Your task to perform on an android device: turn on translation in the chrome app Image 0: 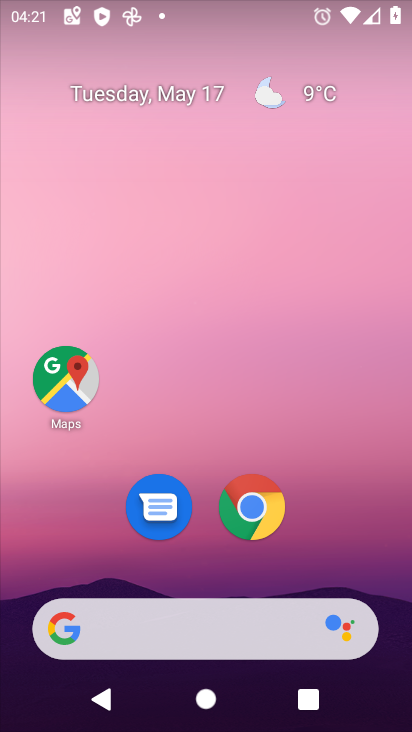
Step 0: click (260, 512)
Your task to perform on an android device: turn on translation in the chrome app Image 1: 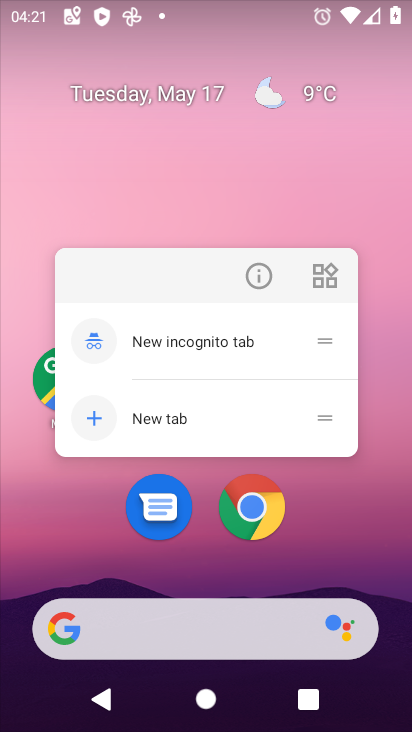
Step 1: click (244, 533)
Your task to perform on an android device: turn on translation in the chrome app Image 2: 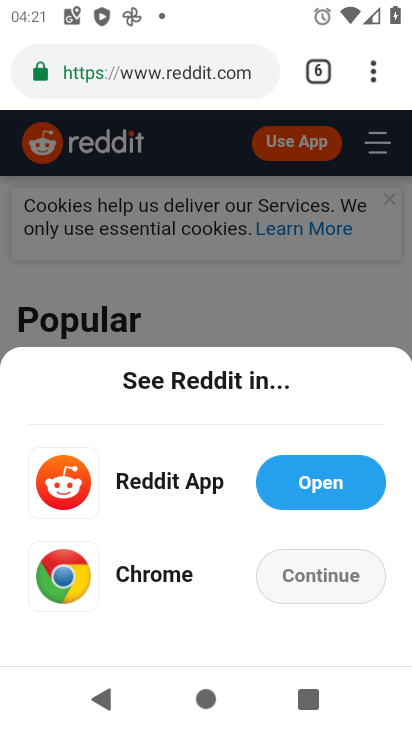
Step 2: click (370, 62)
Your task to perform on an android device: turn on translation in the chrome app Image 3: 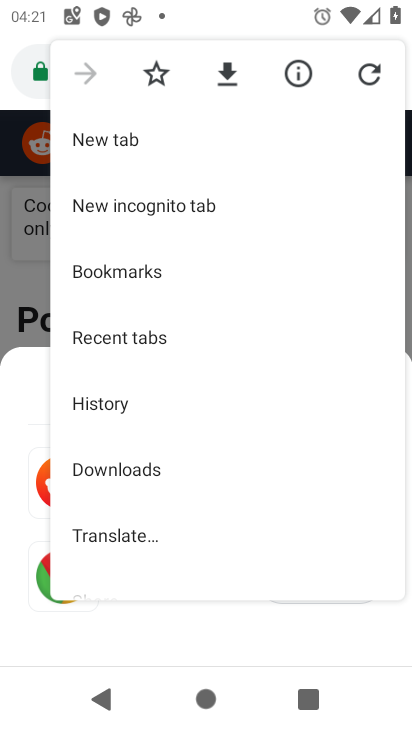
Step 3: drag from (209, 474) to (190, 222)
Your task to perform on an android device: turn on translation in the chrome app Image 4: 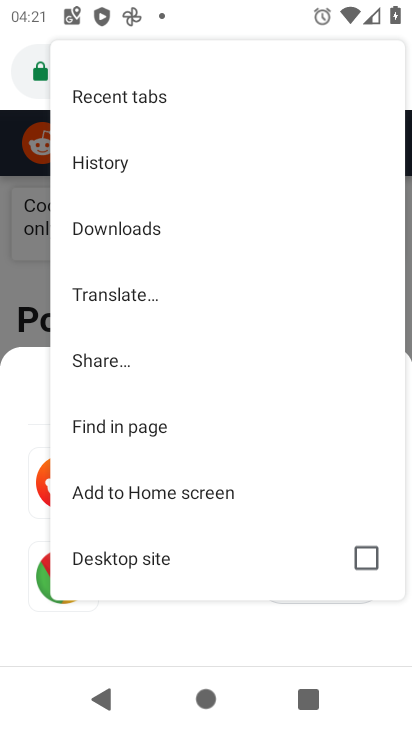
Step 4: drag from (204, 493) to (221, 195)
Your task to perform on an android device: turn on translation in the chrome app Image 5: 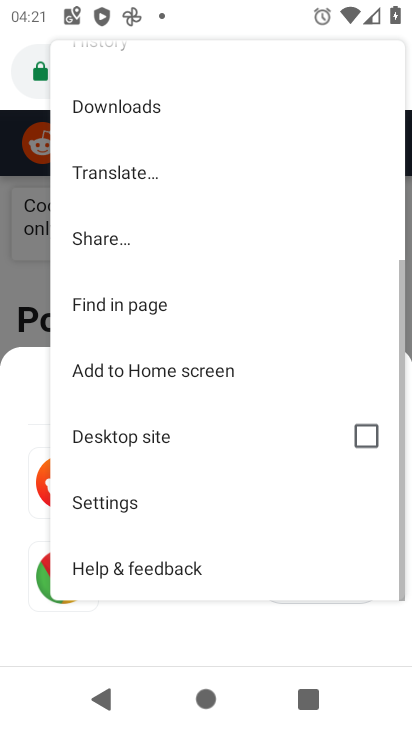
Step 5: click (126, 510)
Your task to perform on an android device: turn on translation in the chrome app Image 6: 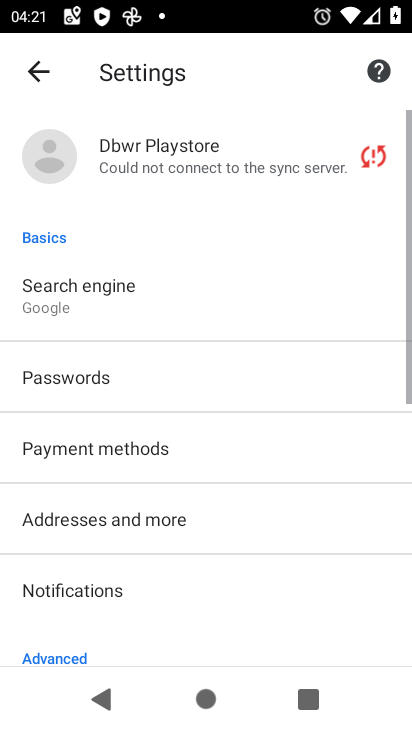
Step 6: drag from (267, 509) to (238, 127)
Your task to perform on an android device: turn on translation in the chrome app Image 7: 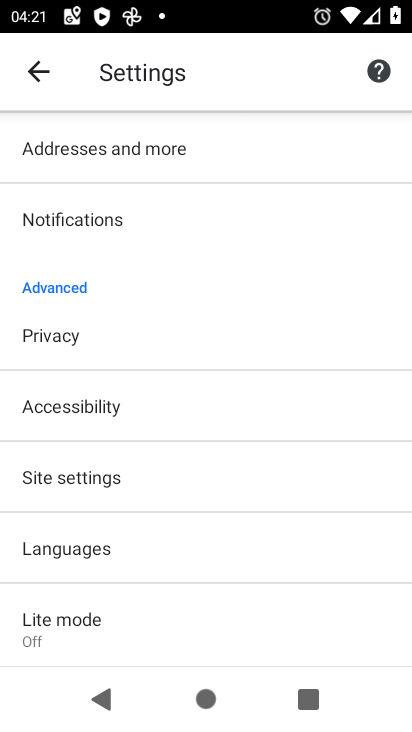
Step 7: click (132, 543)
Your task to perform on an android device: turn on translation in the chrome app Image 8: 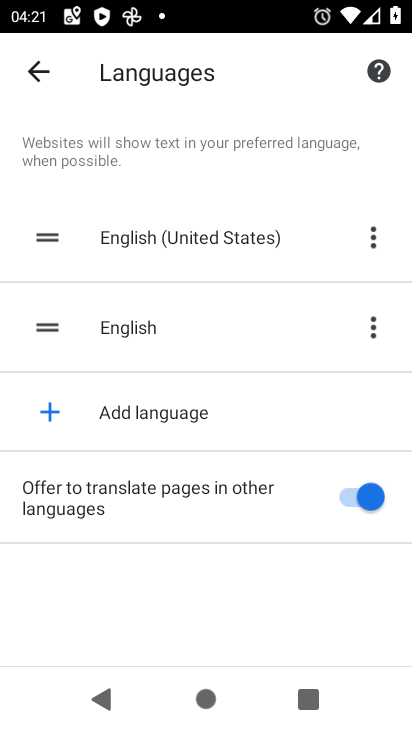
Step 8: task complete